Your task to perform on an android device: star an email in the gmail app Image 0: 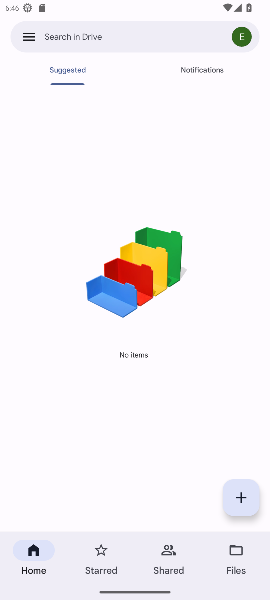
Step 0: task complete